Your task to perform on an android device: Open Yahoo.com Image 0: 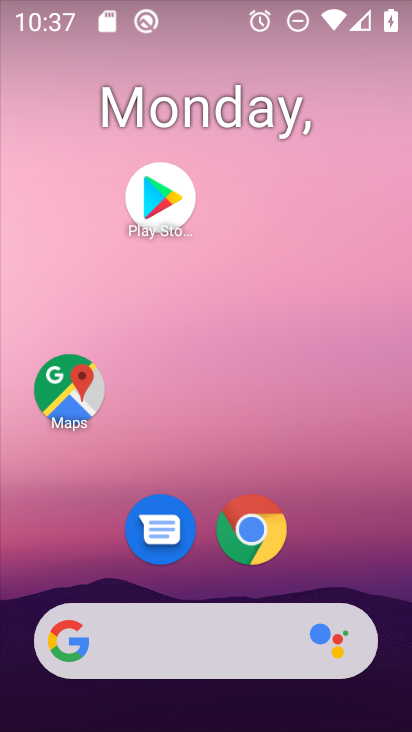
Step 0: click (252, 510)
Your task to perform on an android device: Open Yahoo.com Image 1: 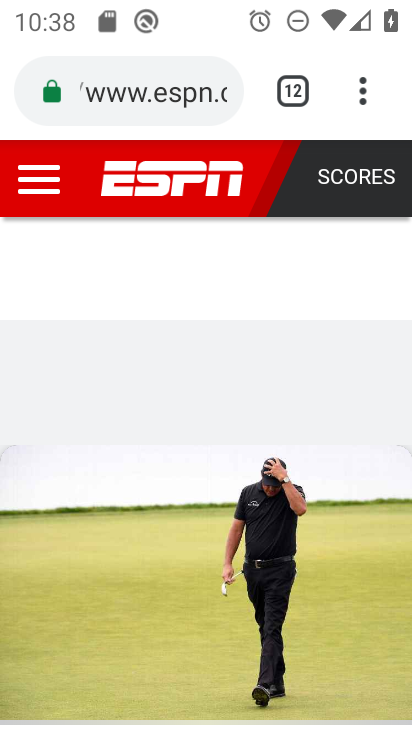
Step 1: click (358, 92)
Your task to perform on an android device: Open Yahoo.com Image 2: 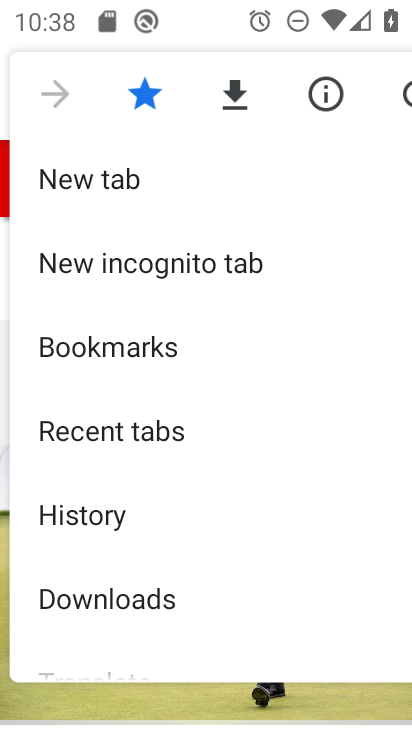
Step 2: click (103, 181)
Your task to perform on an android device: Open Yahoo.com Image 3: 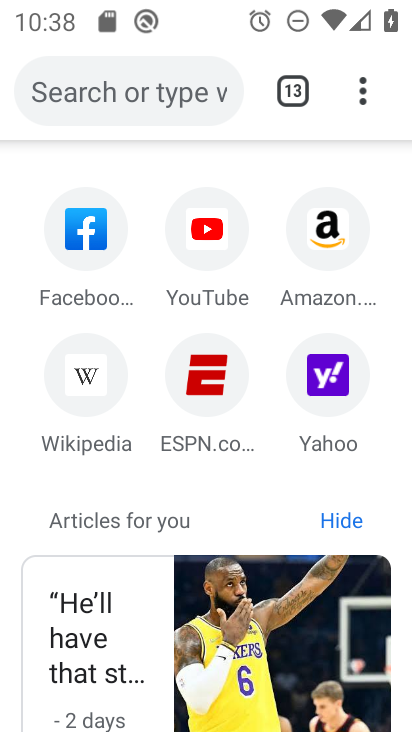
Step 3: click (311, 375)
Your task to perform on an android device: Open Yahoo.com Image 4: 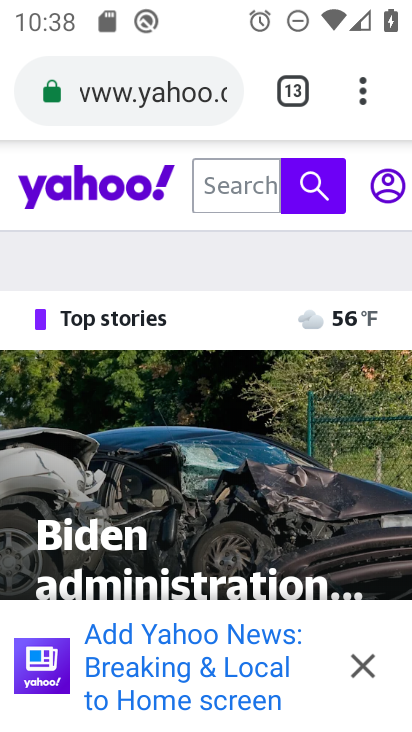
Step 4: task complete